Your task to perform on an android device: set the timer Image 0: 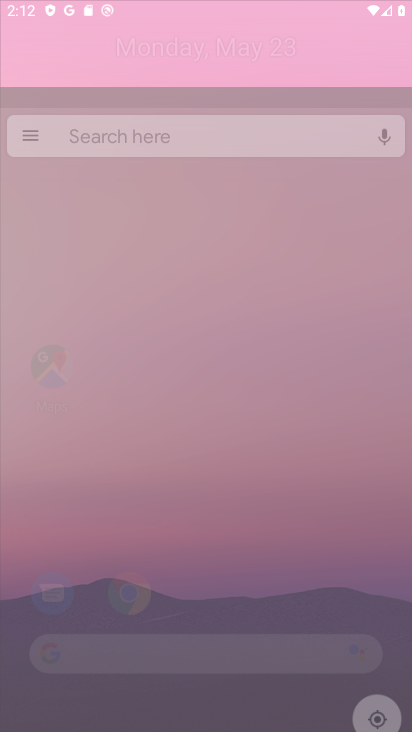
Step 0: click (289, 169)
Your task to perform on an android device: set the timer Image 1: 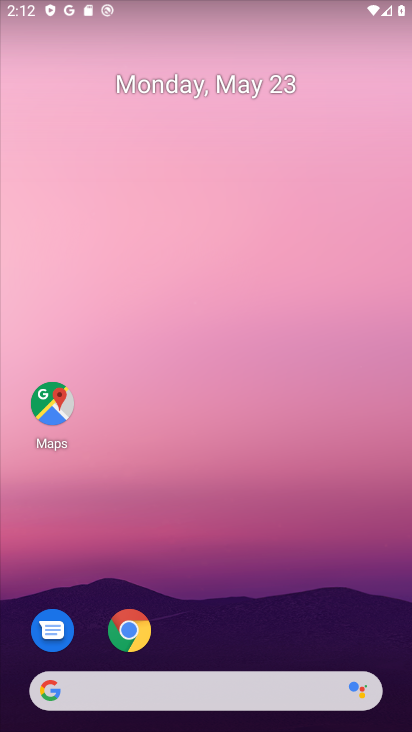
Step 1: drag from (301, 457) to (262, 106)
Your task to perform on an android device: set the timer Image 2: 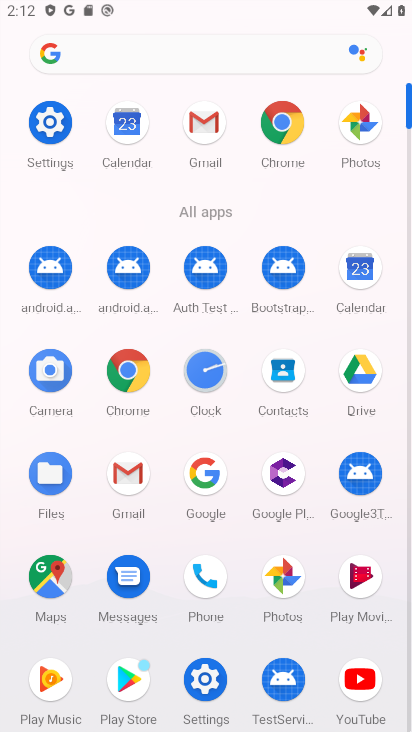
Step 2: click (221, 365)
Your task to perform on an android device: set the timer Image 3: 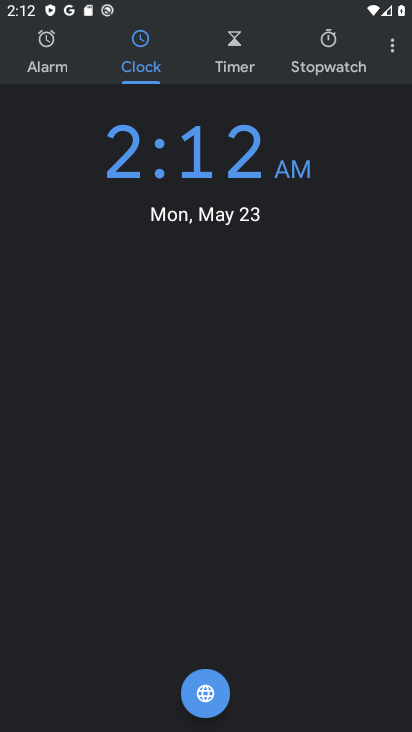
Step 3: drag from (209, 57) to (170, 73)
Your task to perform on an android device: set the timer Image 4: 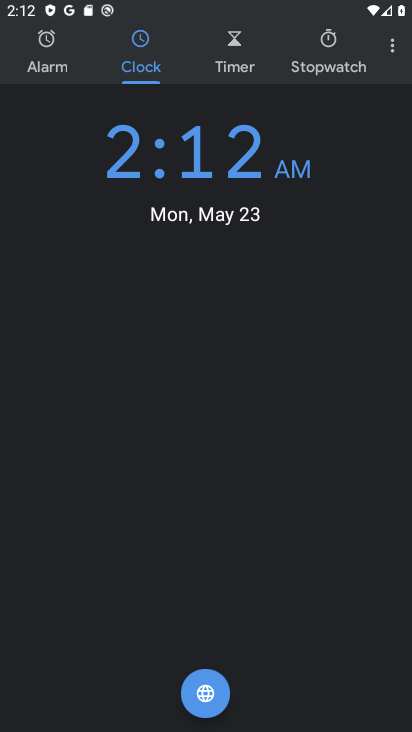
Step 4: click (221, 52)
Your task to perform on an android device: set the timer Image 5: 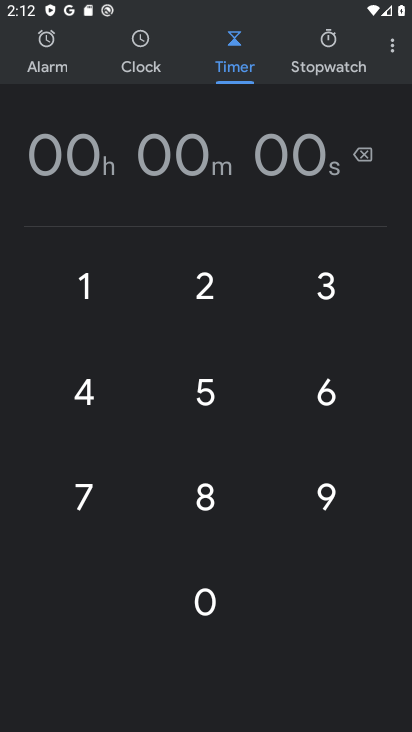
Step 5: click (208, 275)
Your task to perform on an android device: set the timer Image 6: 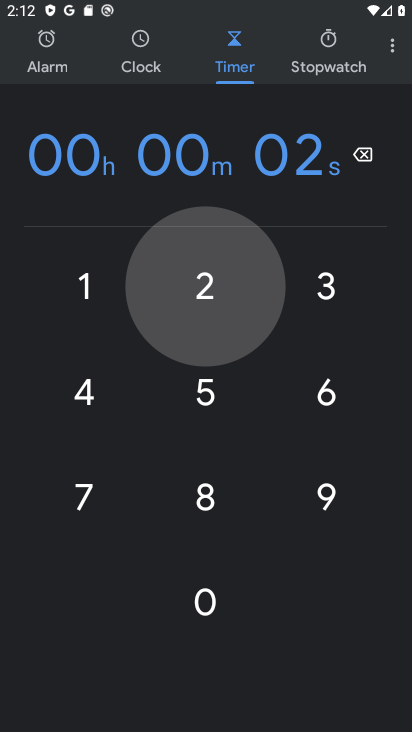
Step 6: click (203, 412)
Your task to perform on an android device: set the timer Image 7: 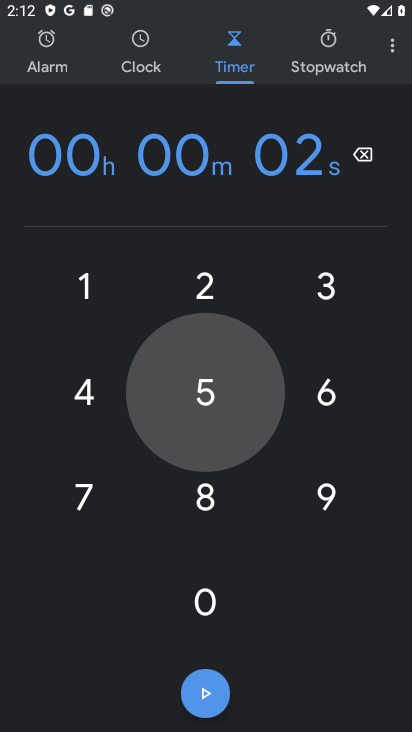
Step 7: click (202, 315)
Your task to perform on an android device: set the timer Image 8: 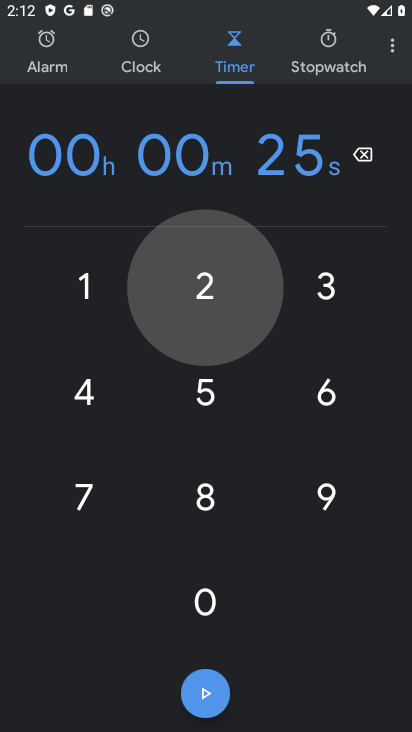
Step 8: click (212, 373)
Your task to perform on an android device: set the timer Image 9: 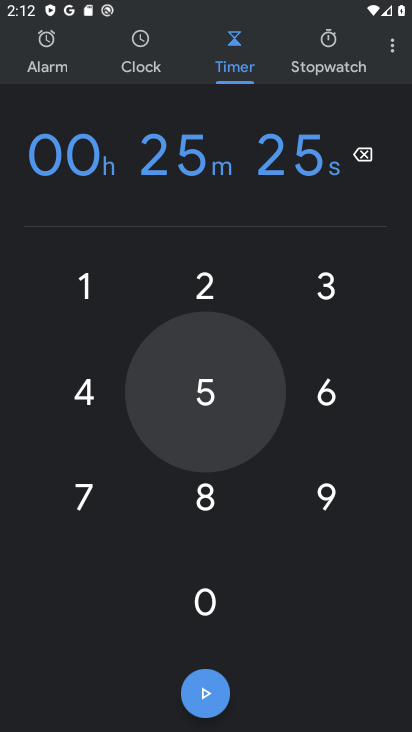
Step 9: click (227, 310)
Your task to perform on an android device: set the timer Image 10: 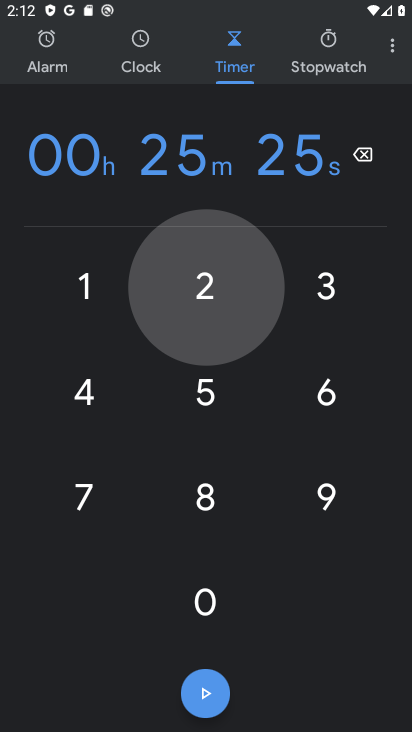
Step 10: click (230, 349)
Your task to perform on an android device: set the timer Image 11: 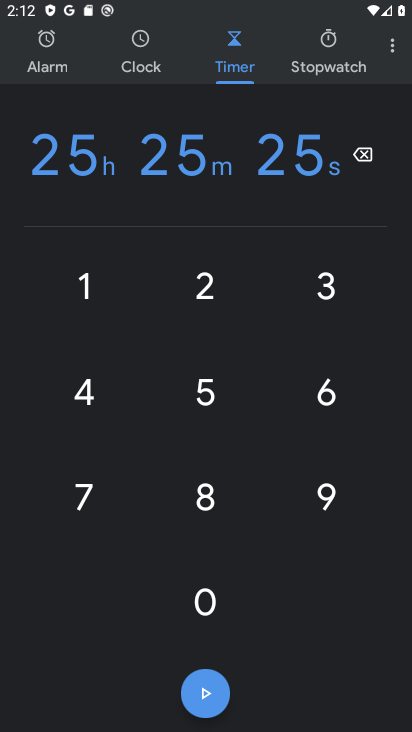
Step 11: click (204, 716)
Your task to perform on an android device: set the timer Image 12: 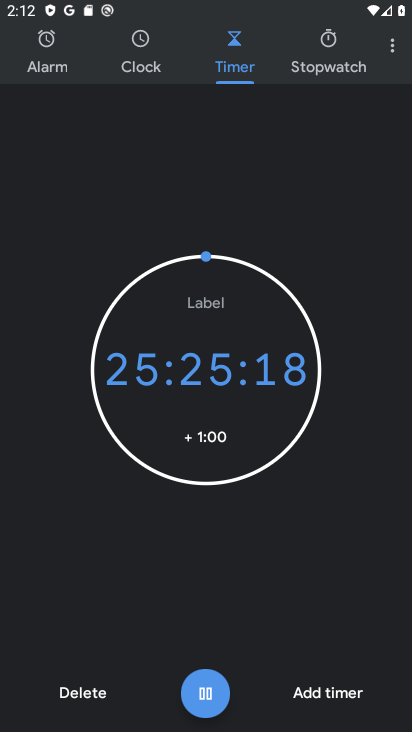
Step 12: task complete